Your task to perform on an android device: Open sound settings Image 0: 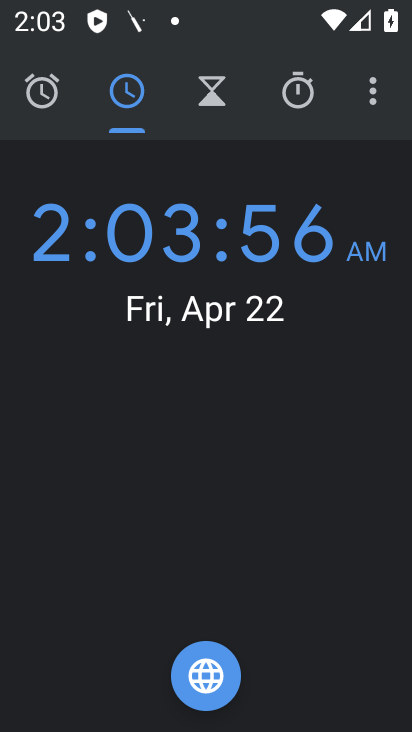
Step 0: press home button
Your task to perform on an android device: Open sound settings Image 1: 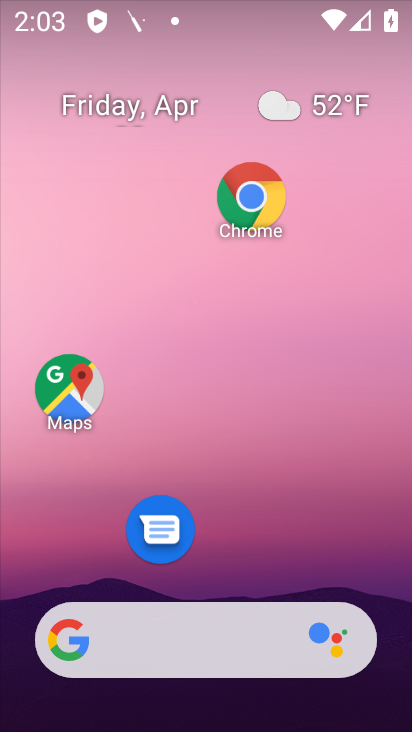
Step 1: drag from (217, 576) to (230, 256)
Your task to perform on an android device: Open sound settings Image 2: 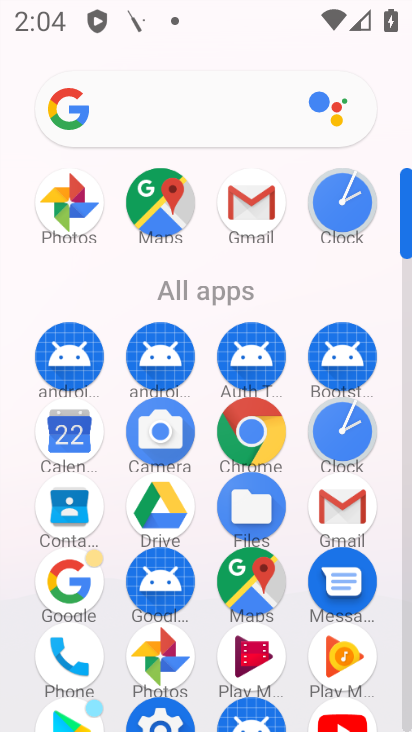
Step 2: drag from (123, 549) to (131, 294)
Your task to perform on an android device: Open sound settings Image 3: 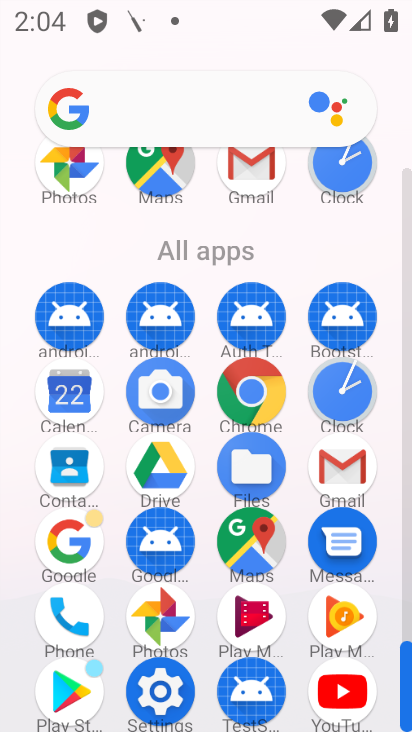
Step 3: click (151, 659)
Your task to perform on an android device: Open sound settings Image 4: 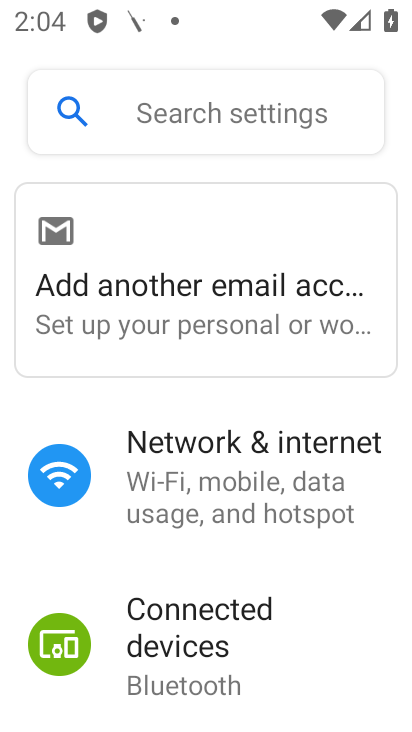
Step 4: drag from (257, 547) to (279, 388)
Your task to perform on an android device: Open sound settings Image 5: 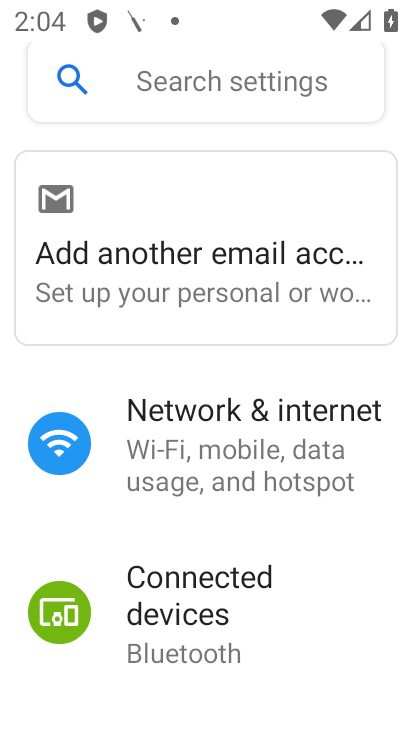
Step 5: drag from (271, 575) to (302, 409)
Your task to perform on an android device: Open sound settings Image 6: 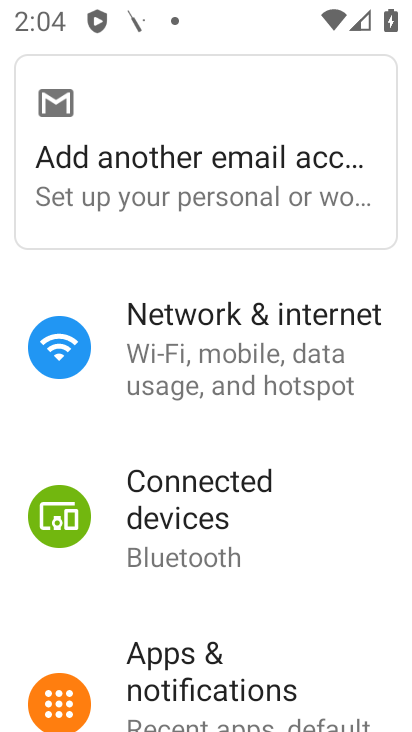
Step 6: click (283, 396)
Your task to perform on an android device: Open sound settings Image 7: 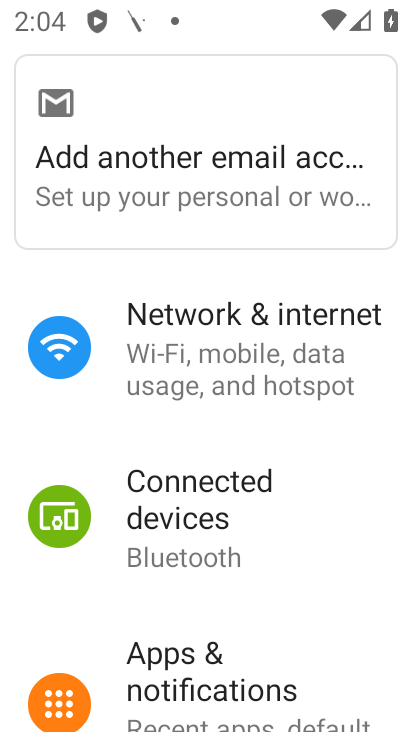
Step 7: drag from (284, 491) to (299, 351)
Your task to perform on an android device: Open sound settings Image 8: 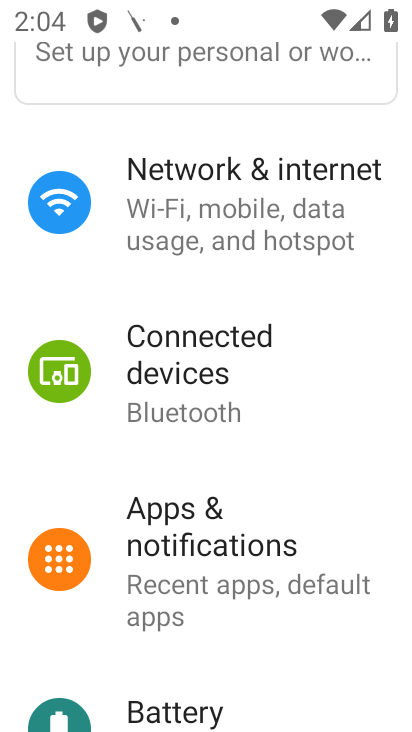
Step 8: drag from (292, 506) to (318, 334)
Your task to perform on an android device: Open sound settings Image 9: 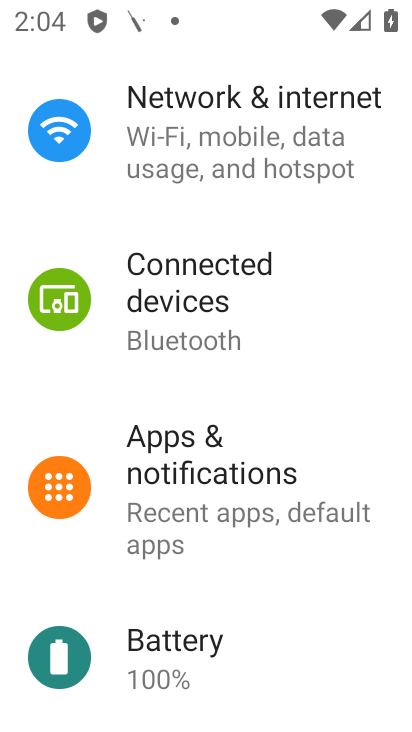
Step 9: drag from (271, 502) to (302, 269)
Your task to perform on an android device: Open sound settings Image 10: 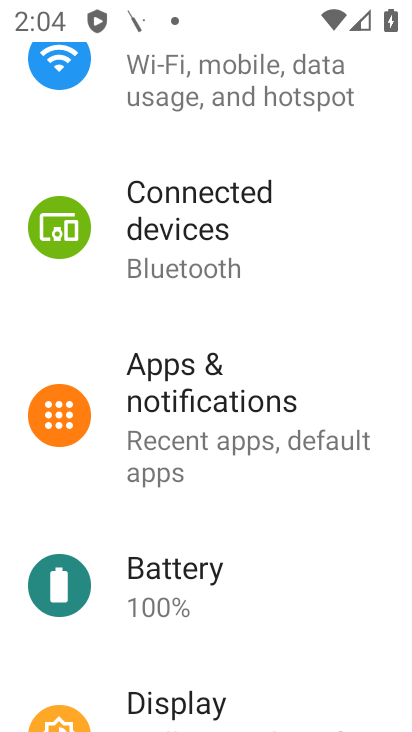
Step 10: drag from (256, 599) to (309, 296)
Your task to perform on an android device: Open sound settings Image 11: 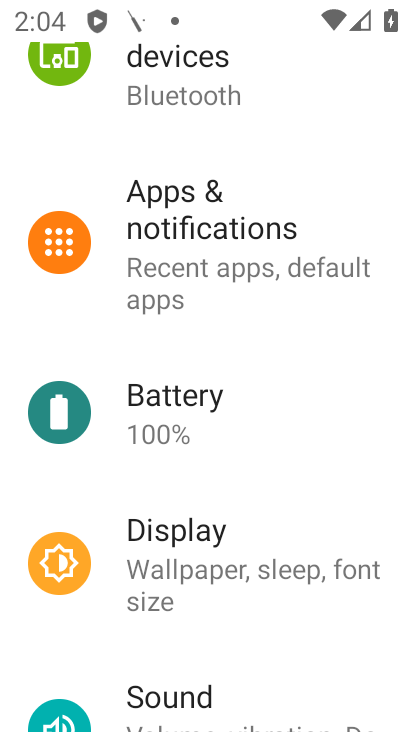
Step 11: drag from (292, 474) to (300, 393)
Your task to perform on an android device: Open sound settings Image 12: 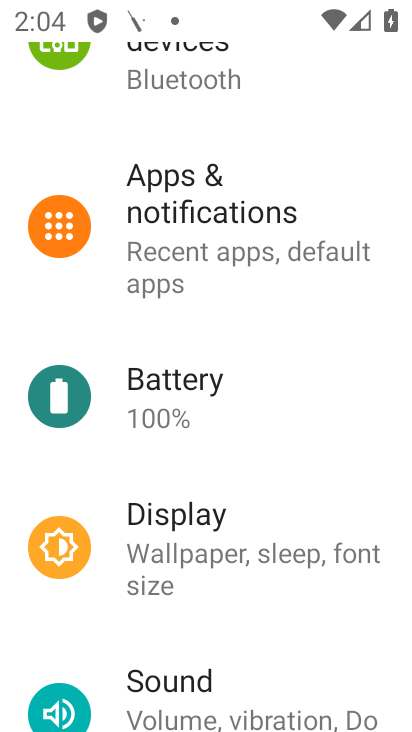
Step 12: click (206, 652)
Your task to perform on an android device: Open sound settings Image 13: 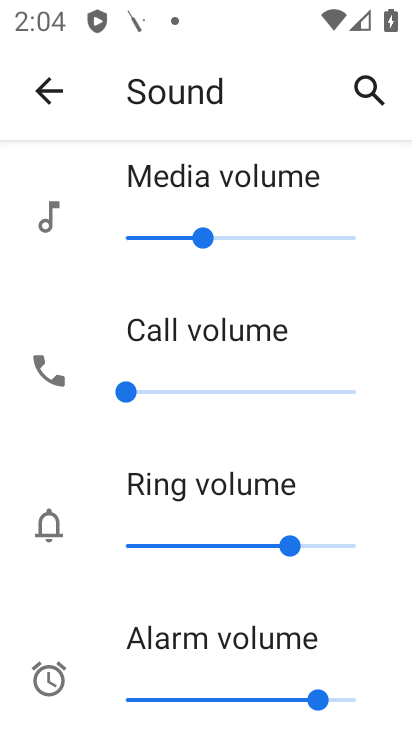
Step 13: task complete